Your task to perform on an android device: Search for sushi restaurants on Maps Image 0: 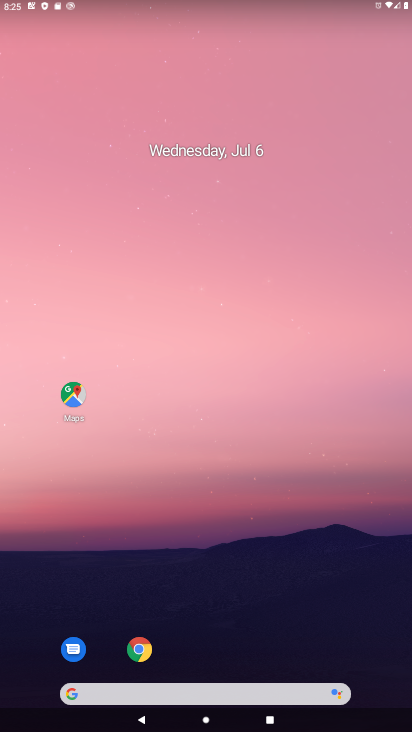
Step 0: drag from (391, 659) to (344, 291)
Your task to perform on an android device: Search for sushi restaurants on Maps Image 1: 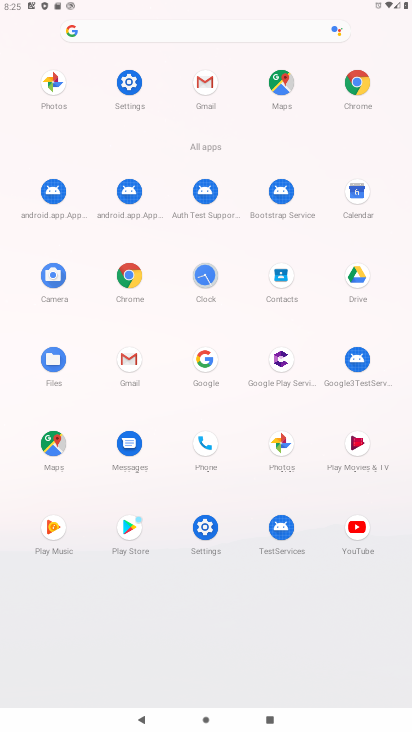
Step 1: click (50, 442)
Your task to perform on an android device: Search for sushi restaurants on Maps Image 2: 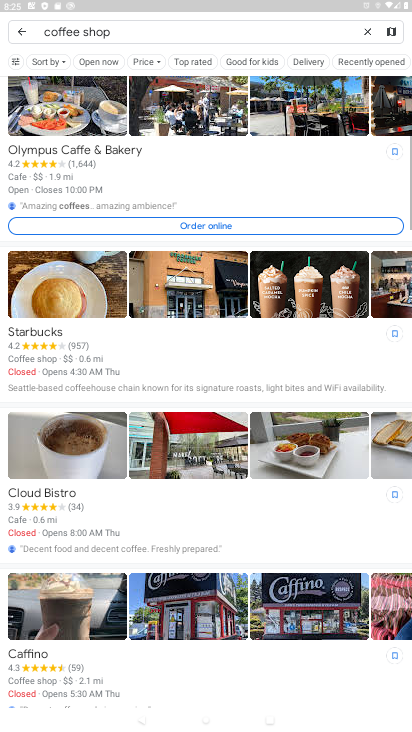
Step 2: click (367, 29)
Your task to perform on an android device: Search for sushi restaurants on Maps Image 3: 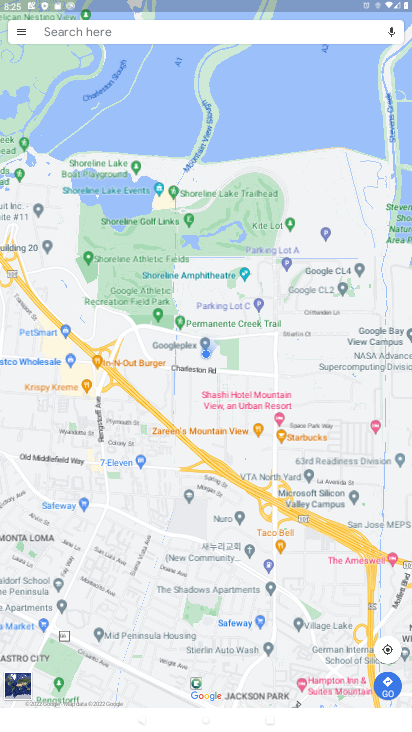
Step 3: click (71, 32)
Your task to perform on an android device: Search for sushi restaurants on Maps Image 4: 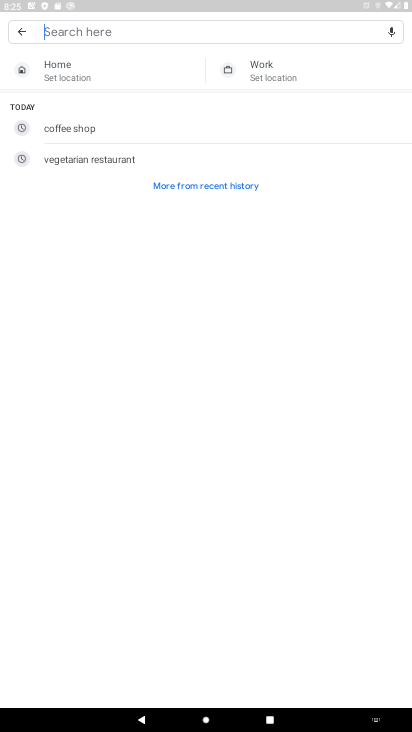
Step 4: type "sushi restaurants"
Your task to perform on an android device: Search for sushi restaurants on Maps Image 5: 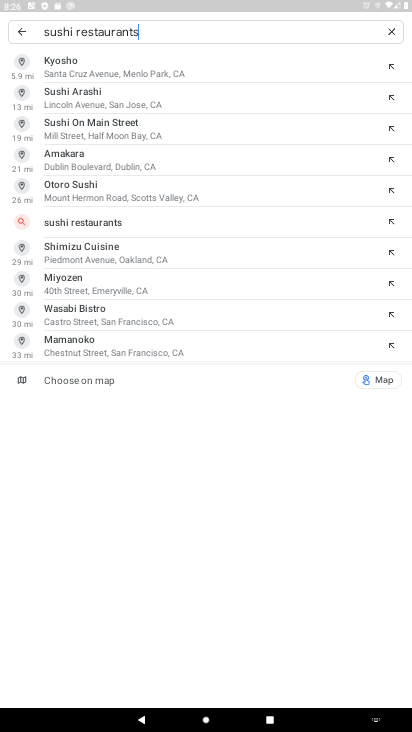
Step 5: drag from (238, 81) to (225, 300)
Your task to perform on an android device: Search for sushi restaurants on Maps Image 6: 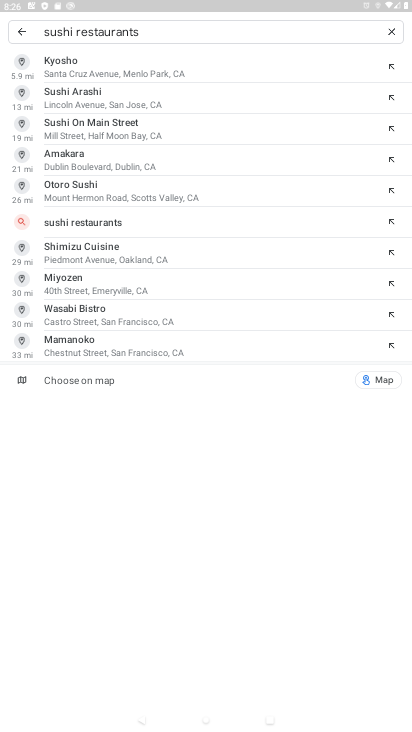
Step 6: click (148, 28)
Your task to perform on an android device: Search for sushi restaurants on Maps Image 7: 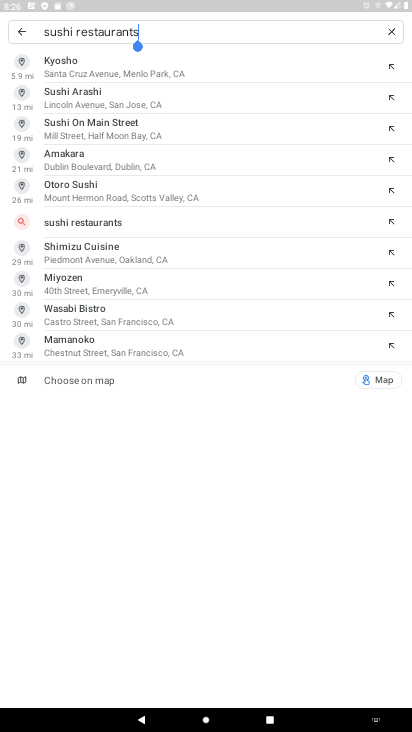
Step 7: click (148, 28)
Your task to perform on an android device: Search for sushi restaurants on Maps Image 8: 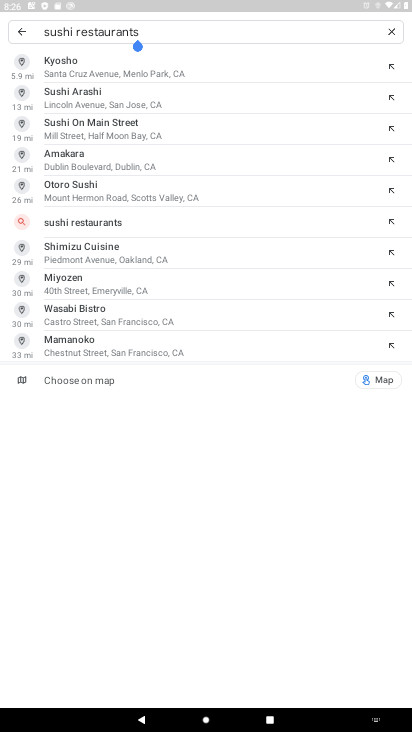
Step 8: drag from (112, 101) to (148, 345)
Your task to perform on an android device: Search for sushi restaurants on Maps Image 9: 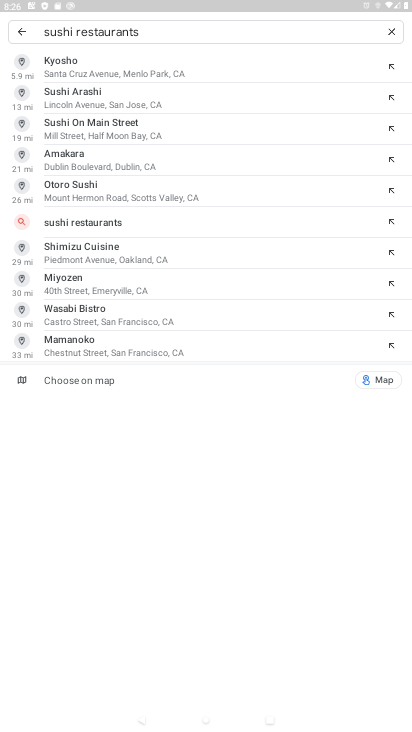
Step 9: click (75, 217)
Your task to perform on an android device: Search for sushi restaurants on Maps Image 10: 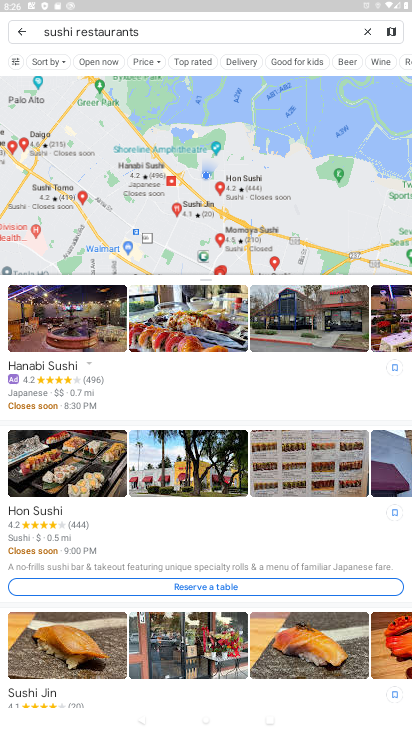
Step 10: task complete